Your task to perform on an android device: all mails in gmail Image 0: 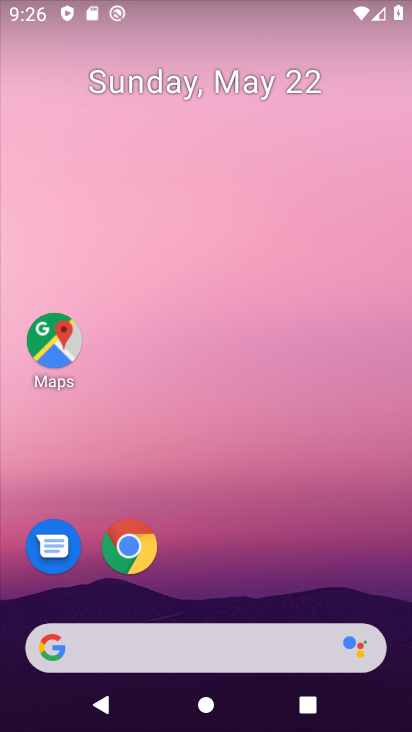
Step 0: drag from (251, 559) to (211, 53)
Your task to perform on an android device: all mails in gmail Image 1: 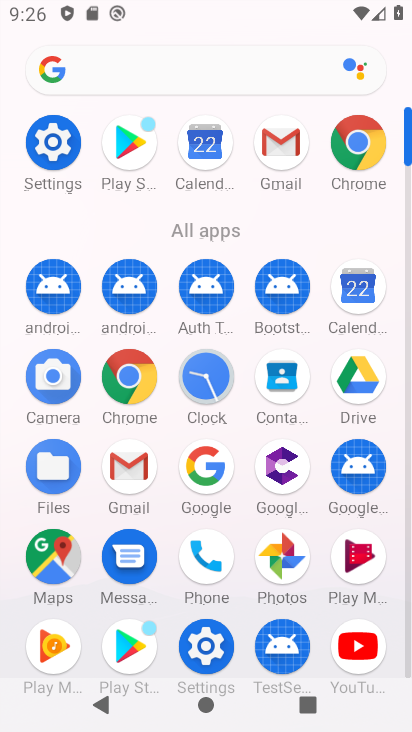
Step 1: click (279, 167)
Your task to perform on an android device: all mails in gmail Image 2: 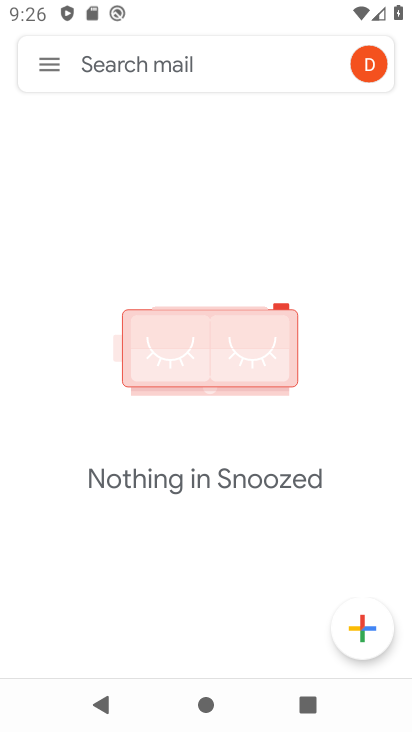
Step 2: click (68, 75)
Your task to perform on an android device: all mails in gmail Image 3: 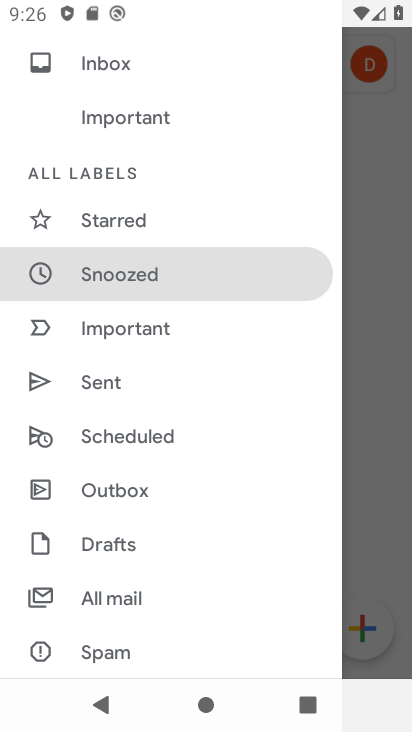
Step 3: click (143, 596)
Your task to perform on an android device: all mails in gmail Image 4: 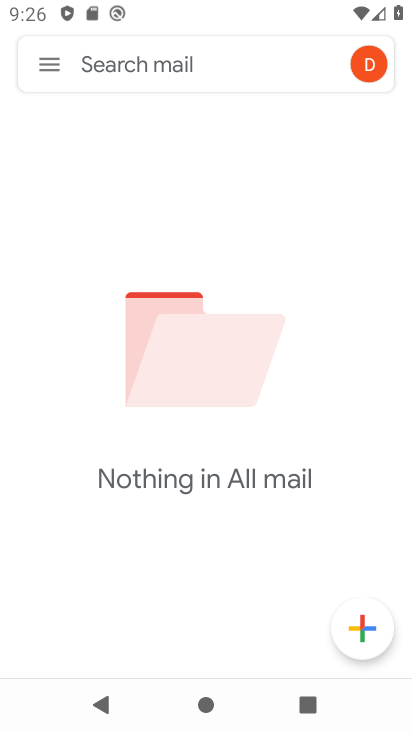
Step 4: task complete